Your task to perform on an android device: toggle notification dots Image 0: 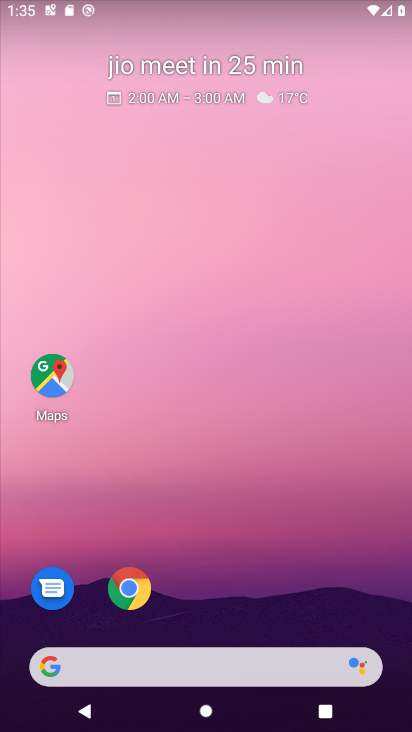
Step 0: drag from (275, 632) to (369, 6)
Your task to perform on an android device: toggle notification dots Image 1: 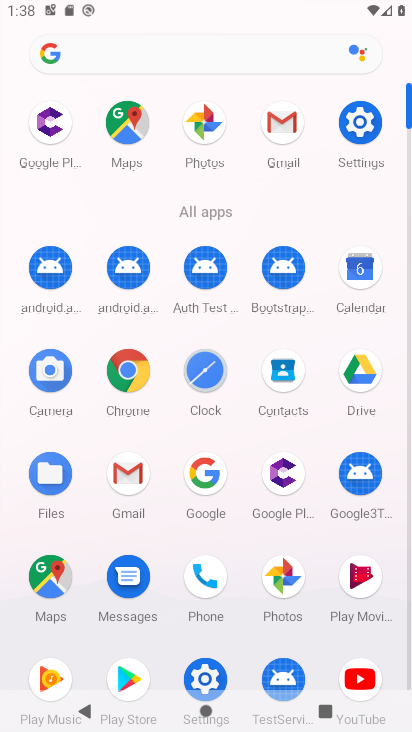
Step 1: click (371, 113)
Your task to perform on an android device: toggle notification dots Image 2: 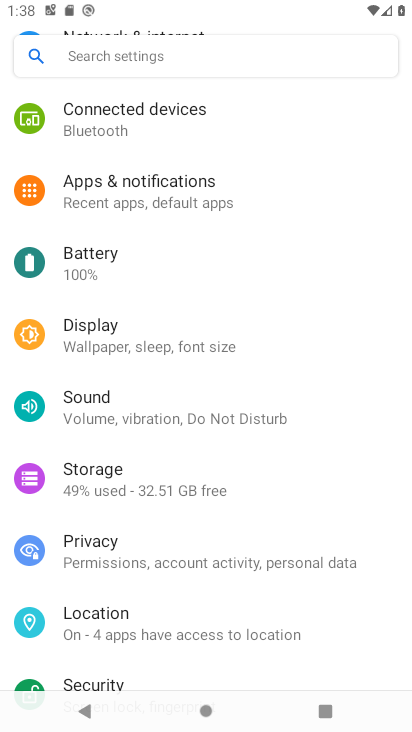
Step 2: click (184, 179)
Your task to perform on an android device: toggle notification dots Image 3: 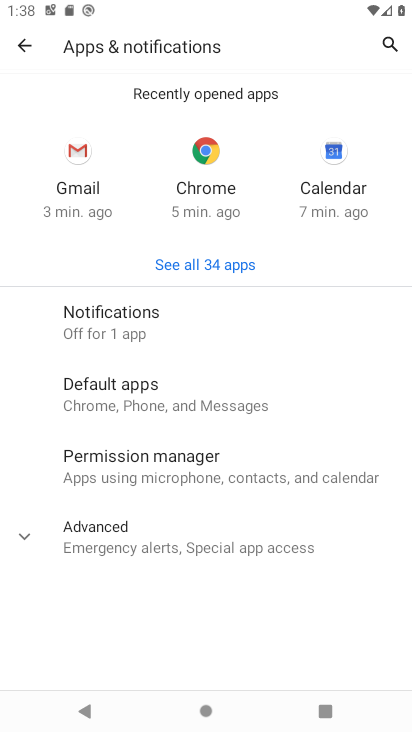
Step 3: click (205, 320)
Your task to perform on an android device: toggle notification dots Image 4: 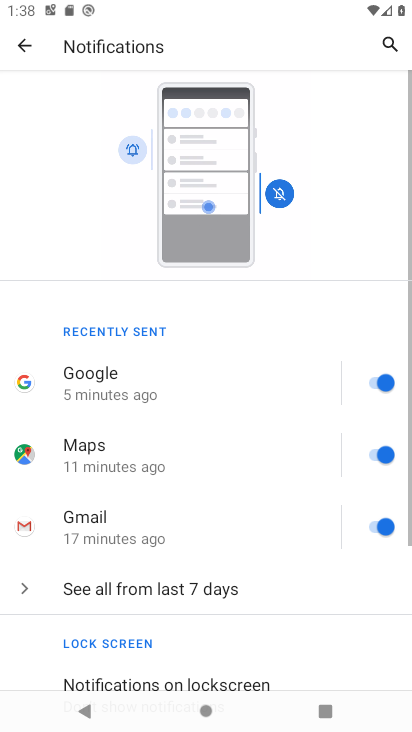
Step 4: drag from (236, 493) to (226, 54)
Your task to perform on an android device: toggle notification dots Image 5: 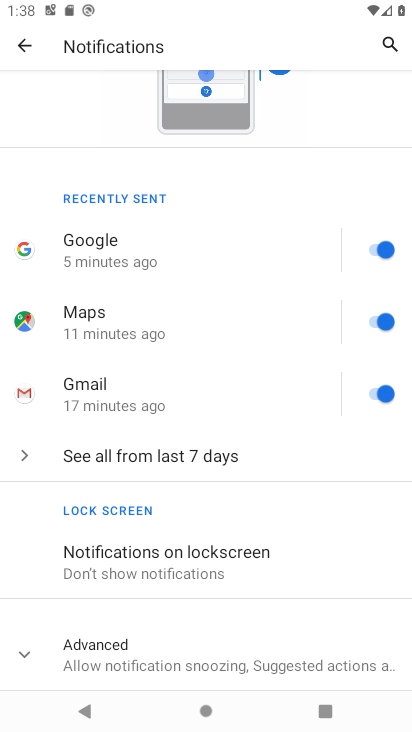
Step 5: click (265, 661)
Your task to perform on an android device: toggle notification dots Image 6: 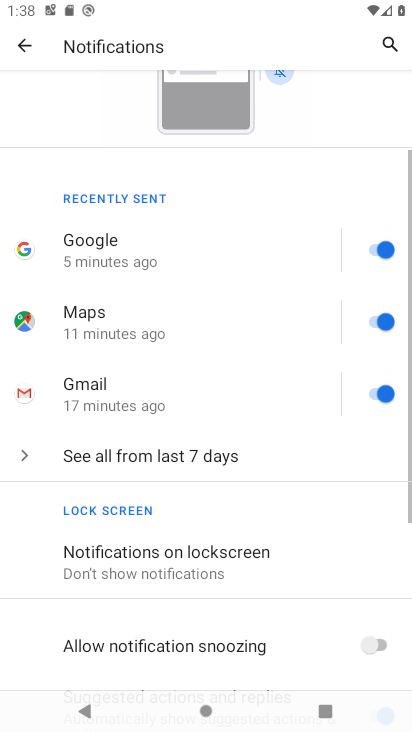
Step 6: drag from (278, 552) to (208, 70)
Your task to perform on an android device: toggle notification dots Image 7: 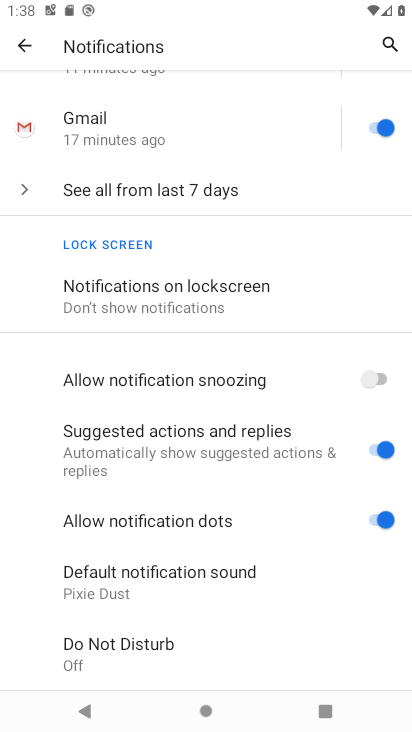
Step 7: drag from (222, 631) to (233, 13)
Your task to perform on an android device: toggle notification dots Image 8: 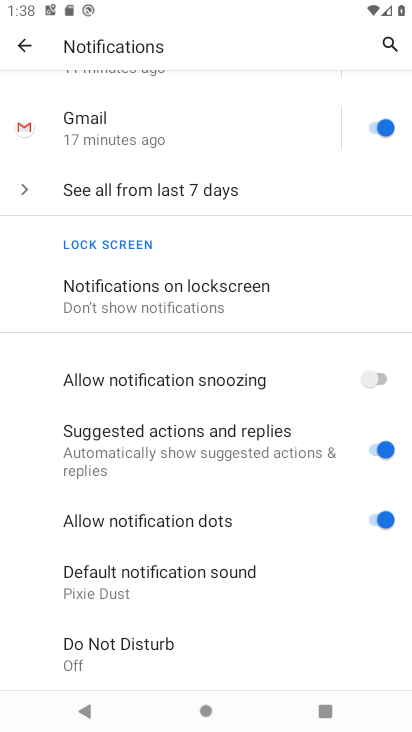
Step 8: click (394, 515)
Your task to perform on an android device: toggle notification dots Image 9: 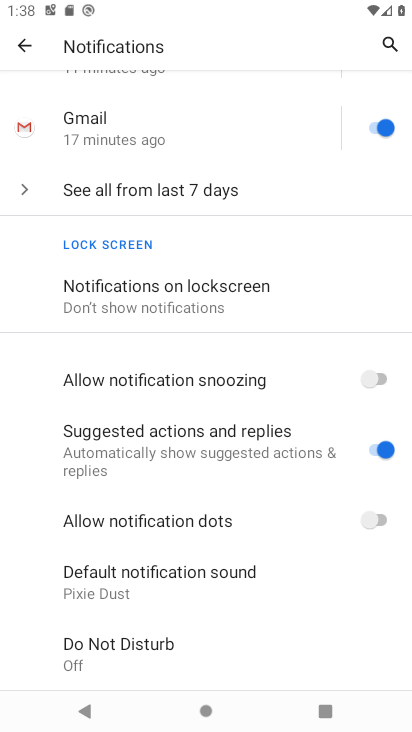
Step 9: task complete